Your task to perform on an android device: What's on the menu at Red Lobster? Image 0: 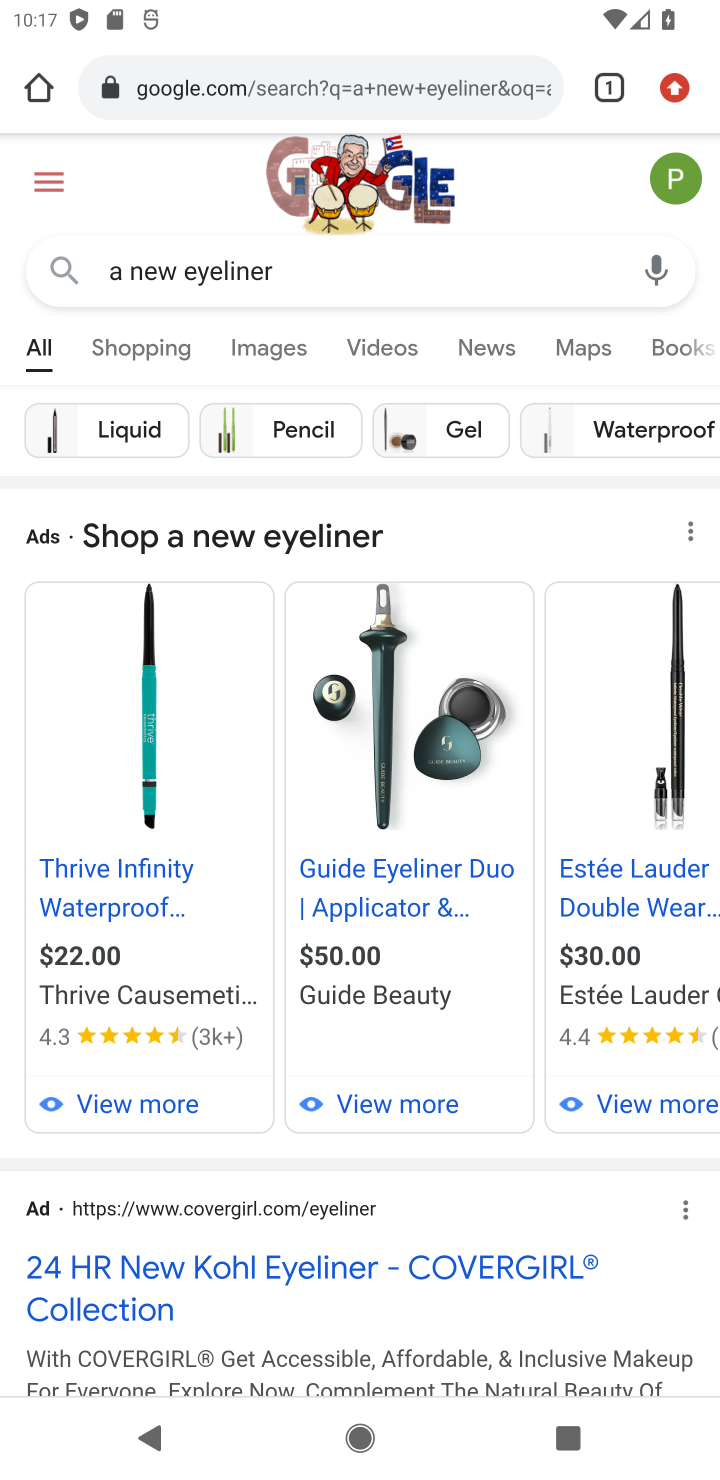
Step 0: click (515, 85)
Your task to perform on an android device: What's on the menu at Red Lobster? Image 1: 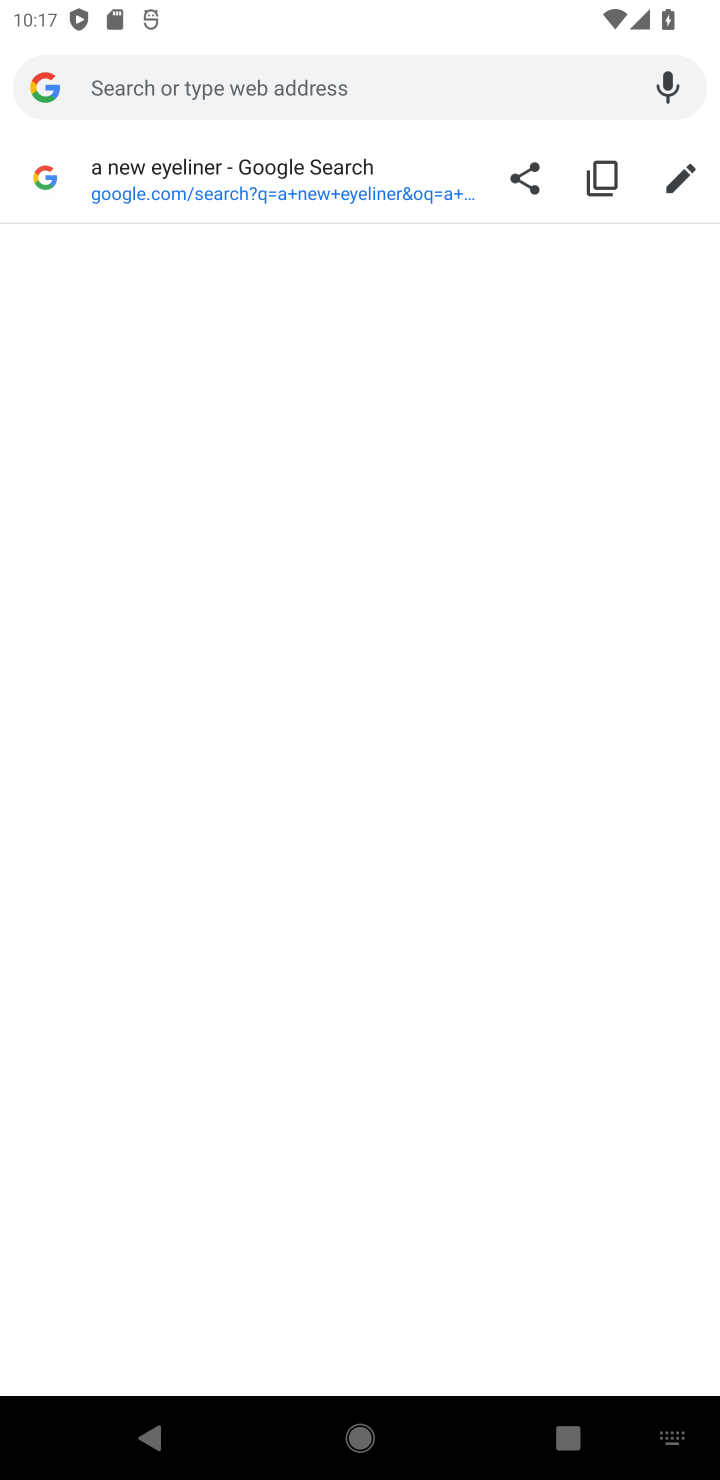
Step 1: type "What's on the menu at Red Lobster?"
Your task to perform on an android device: What's on the menu at Red Lobster? Image 2: 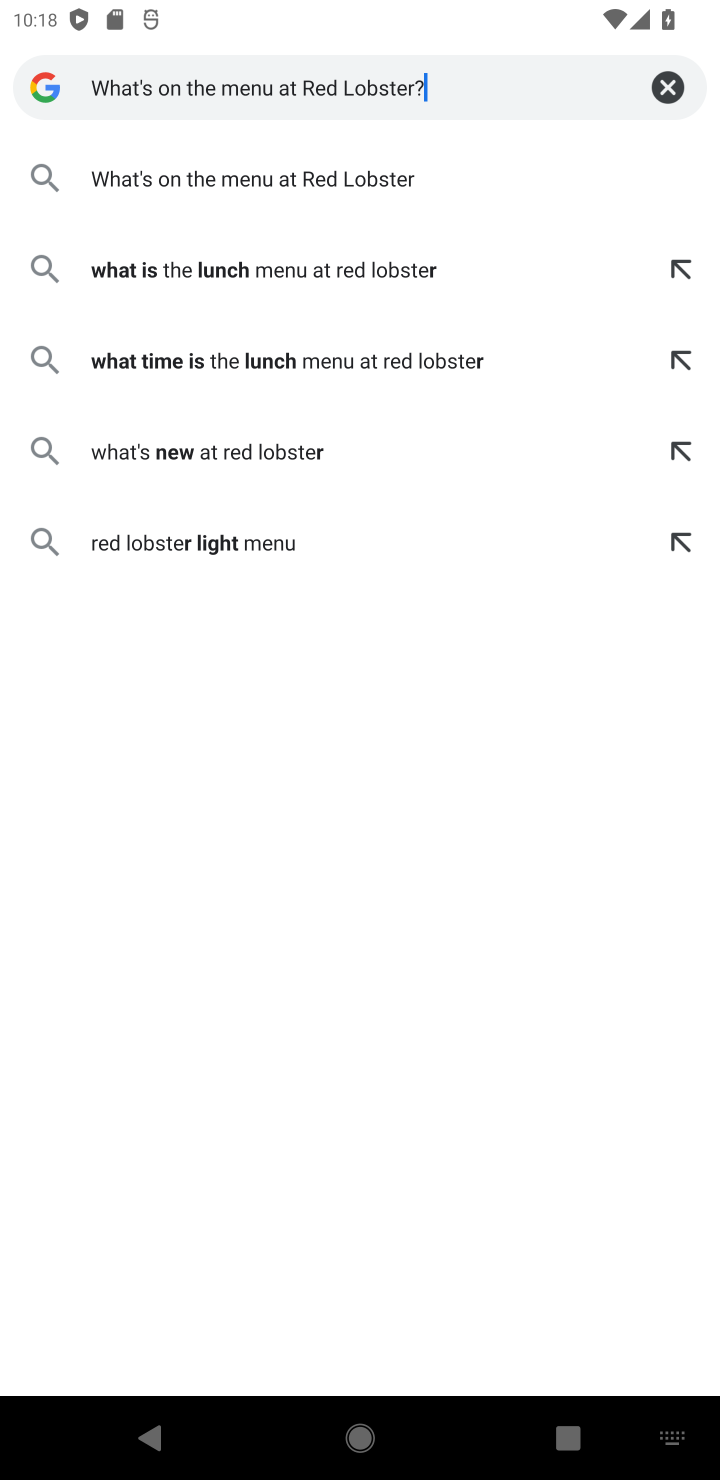
Step 2: press enter
Your task to perform on an android device: What's on the menu at Red Lobster? Image 3: 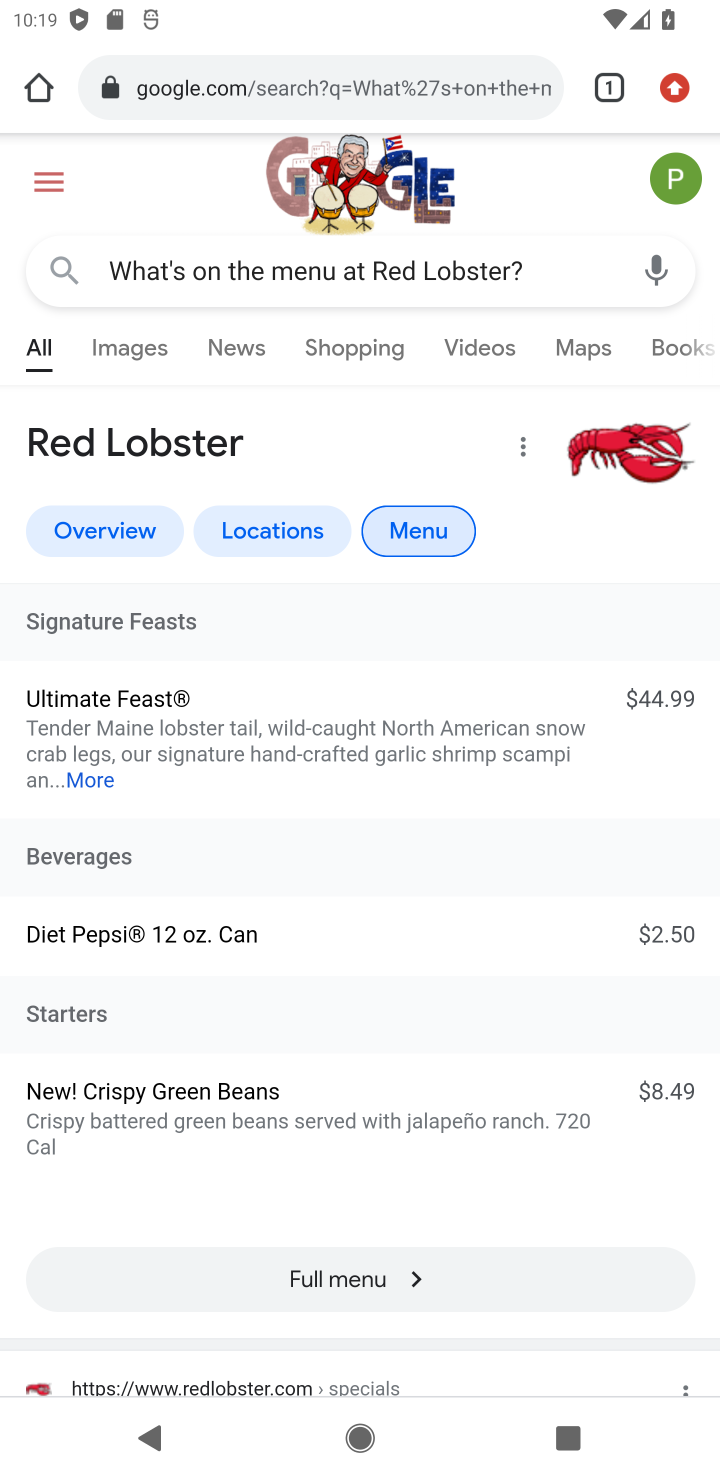
Step 3: task complete